Your task to perform on an android device: Open the Play Movies app and select the watchlist tab. Image 0: 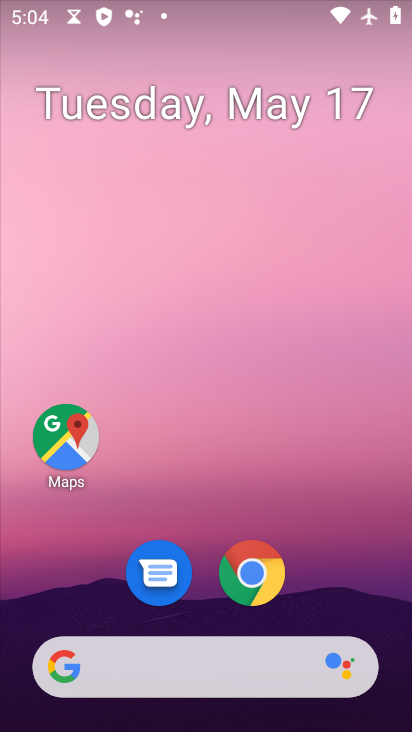
Step 0: drag from (380, 675) to (158, 120)
Your task to perform on an android device: Open the Play Movies app and select the watchlist tab. Image 1: 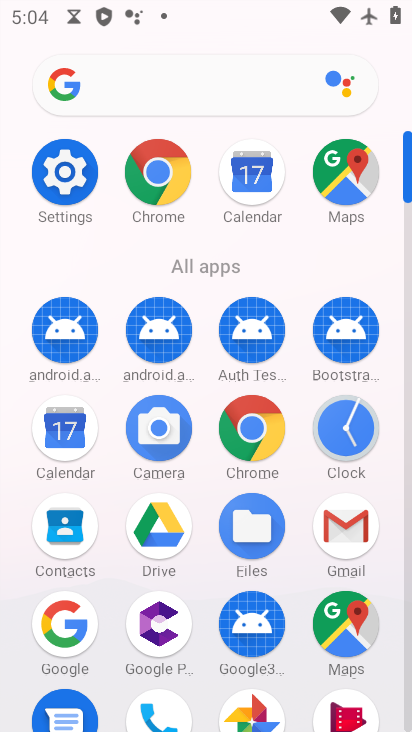
Step 1: drag from (301, 594) to (274, 245)
Your task to perform on an android device: Open the Play Movies app and select the watchlist tab. Image 2: 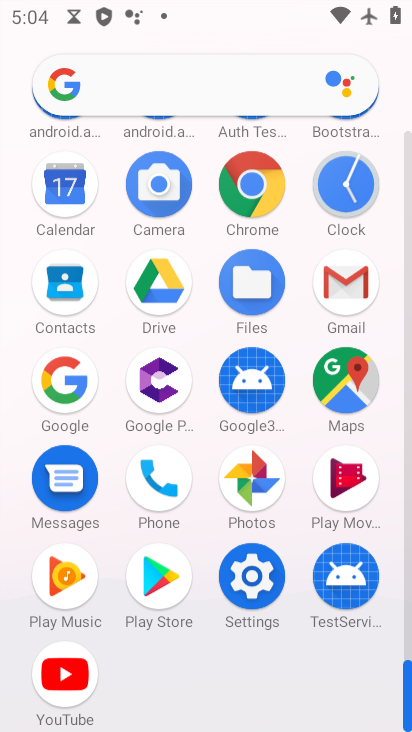
Step 2: drag from (275, 441) to (252, 41)
Your task to perform on an android device: Open the Play Movies app and select the watchlist tab. Image 3: 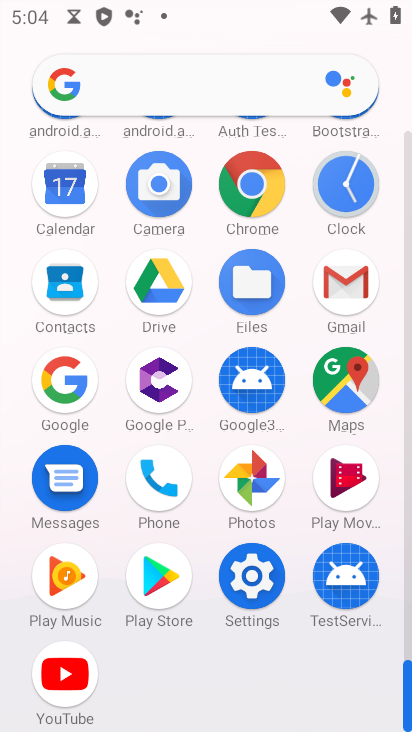
Step 3: click (58, 677)
Your task to perform on an android device: Open the Play Movies app and select the watchlist tab. Image 4: 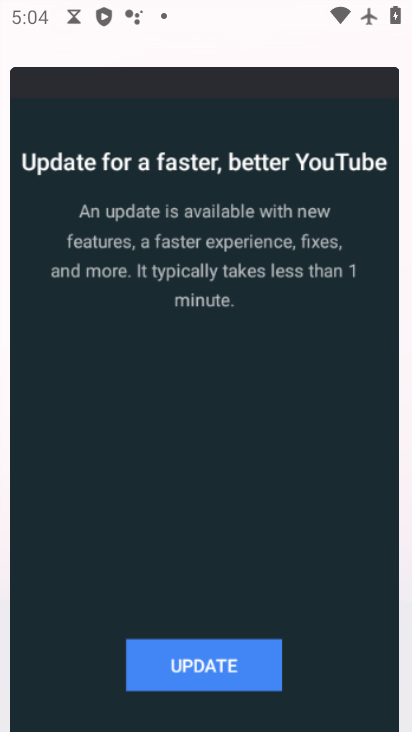
Step 4: click (59, 670)
Your task to perform on an android device: Open the Play Movies app and select the watchlist tab. Image 5: 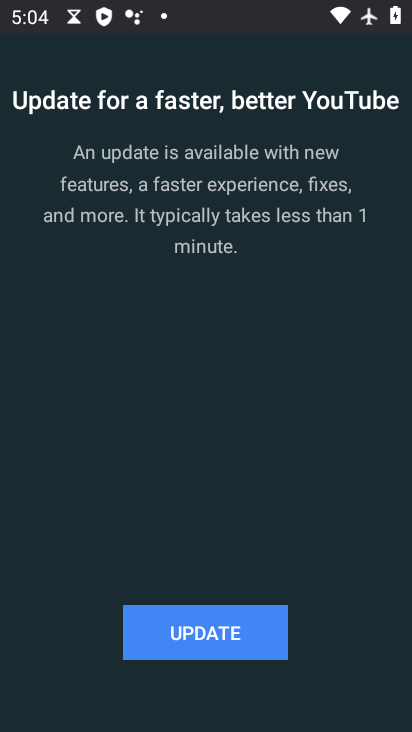
Step 5: press back button
Your task to perform on an android device: Open the Play Movies app and select the watchlist tab. Image 6: 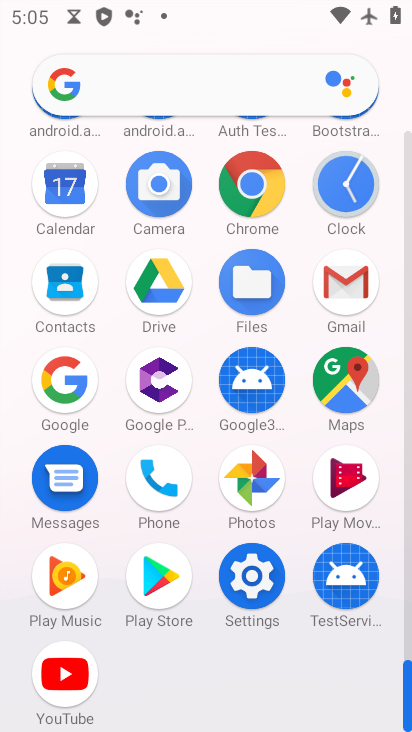
Step 6: click (334, 474)
Your task to perform on an android device: Open the Play Movies app and select the watchlist tab. Image 7: 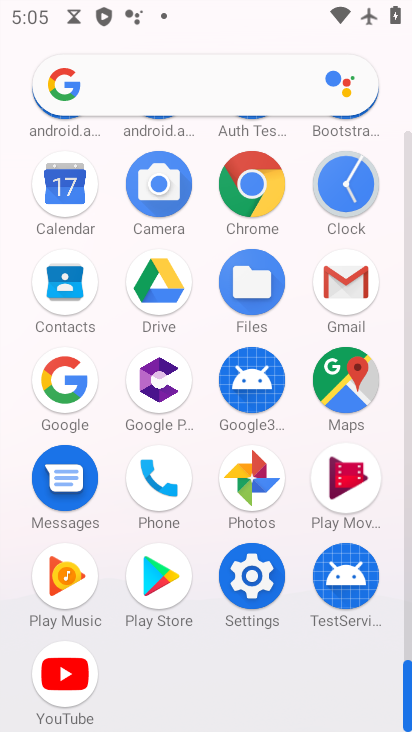
Step 7: click (337, 472)
Your task to perform on an android device: Open the Play Movies app and select the watchlist tab. Image 8: 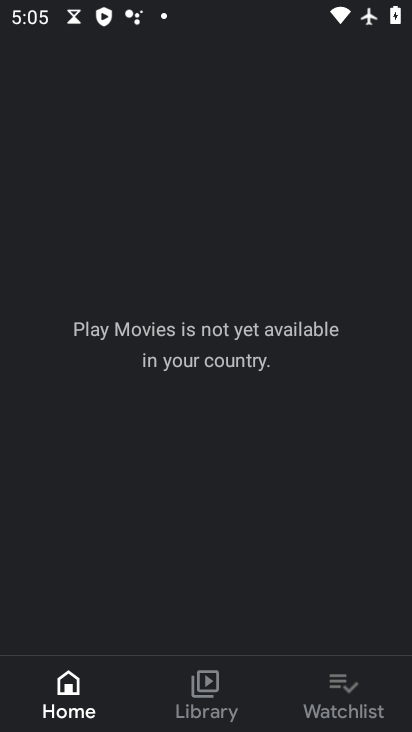
Step 8: click (330, 682)
Your task to perform on an android device: Open the Play Movies app and select the watchlist tab. Image 9: 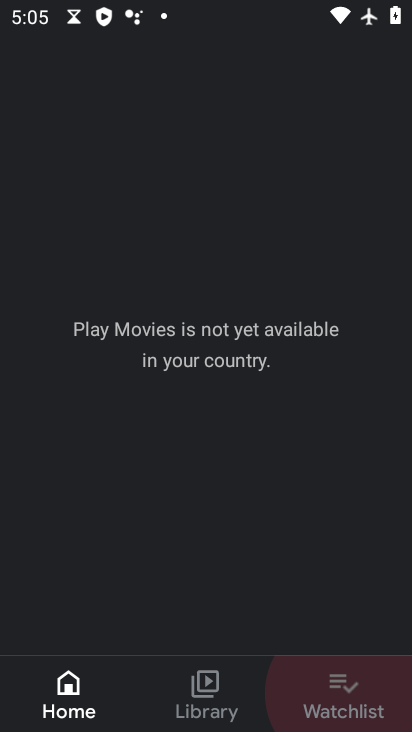
Step 9: click (340, 699)
Your task to perform on an android device: Open the Play Movies app and select the watchlist tab. Image 10: 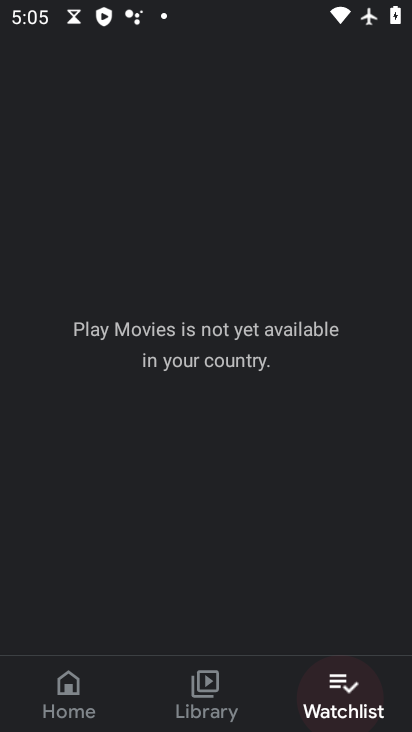
Step 10: click (340, 699)
Your task to perform on an android device: Open the Play Movies app and select the watchlist tab. Image 11: 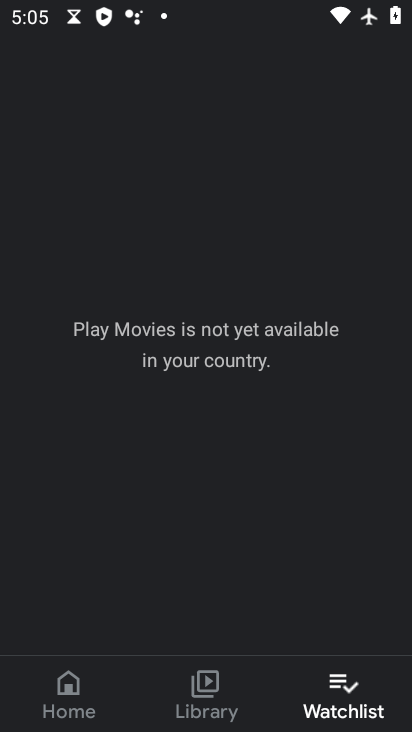
Step 11: task complete